Your task to perform on an android device: change notifications settings Image 0: 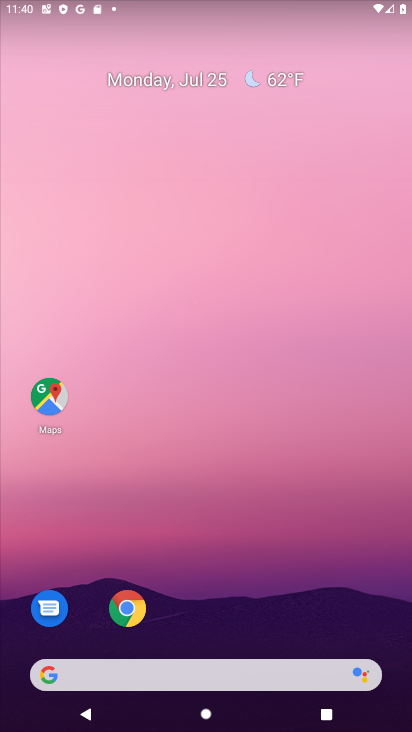
Step 0: drag from (218, 614) to (183, 307)
Your task to perform on an android device: change notifications settings Image 1: 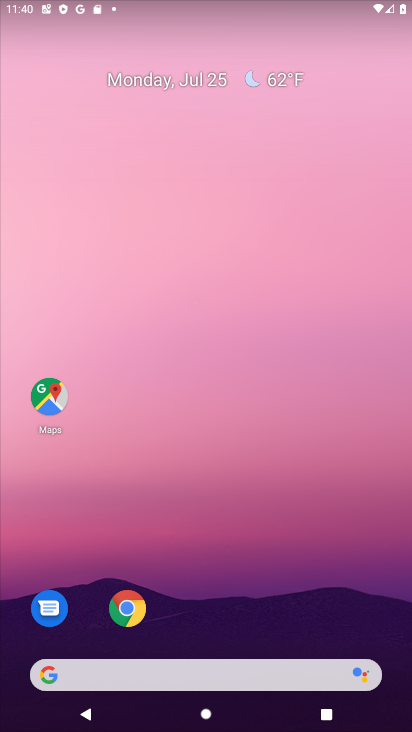
Step 1: drag from (239, 478) to (245, 131)
Your task to perform on an android device: change notifications settings Image 2: 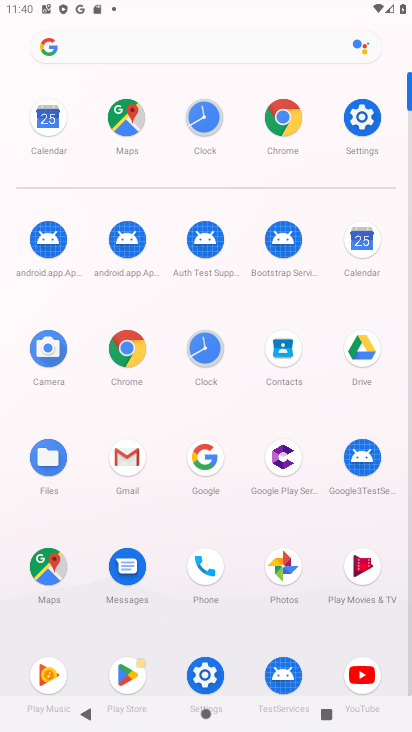
Step 2: click (358, 100)
Your task to perform on an android device: change notifications settings Image 3: 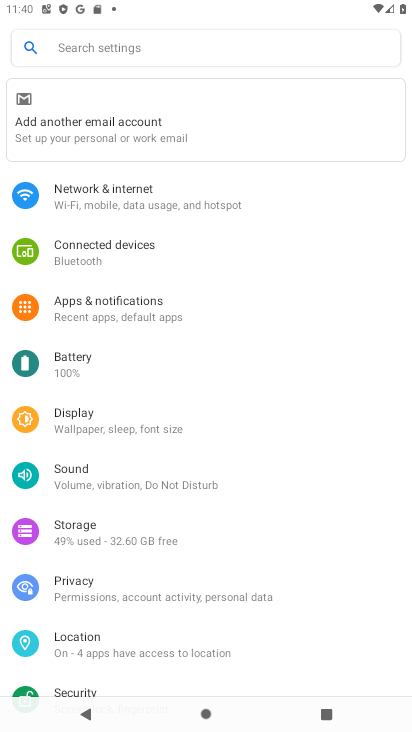
Step 3: click (142, 315)
Your task to perform on an android device: change notifications settings Image 4: 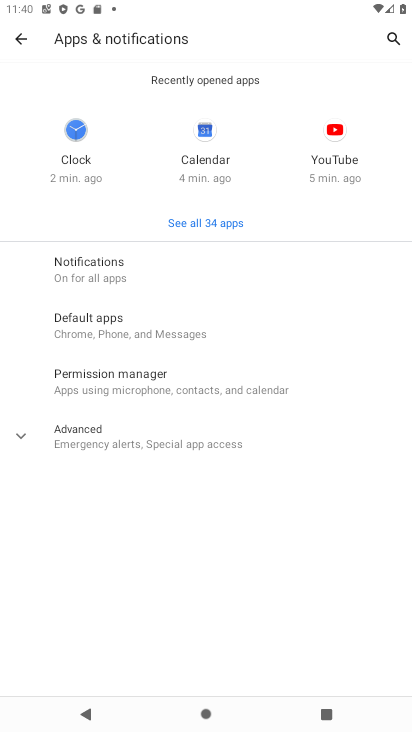
Step 4: task complete